Your task to perform on an android device: What's the latest tech news? Image 0: 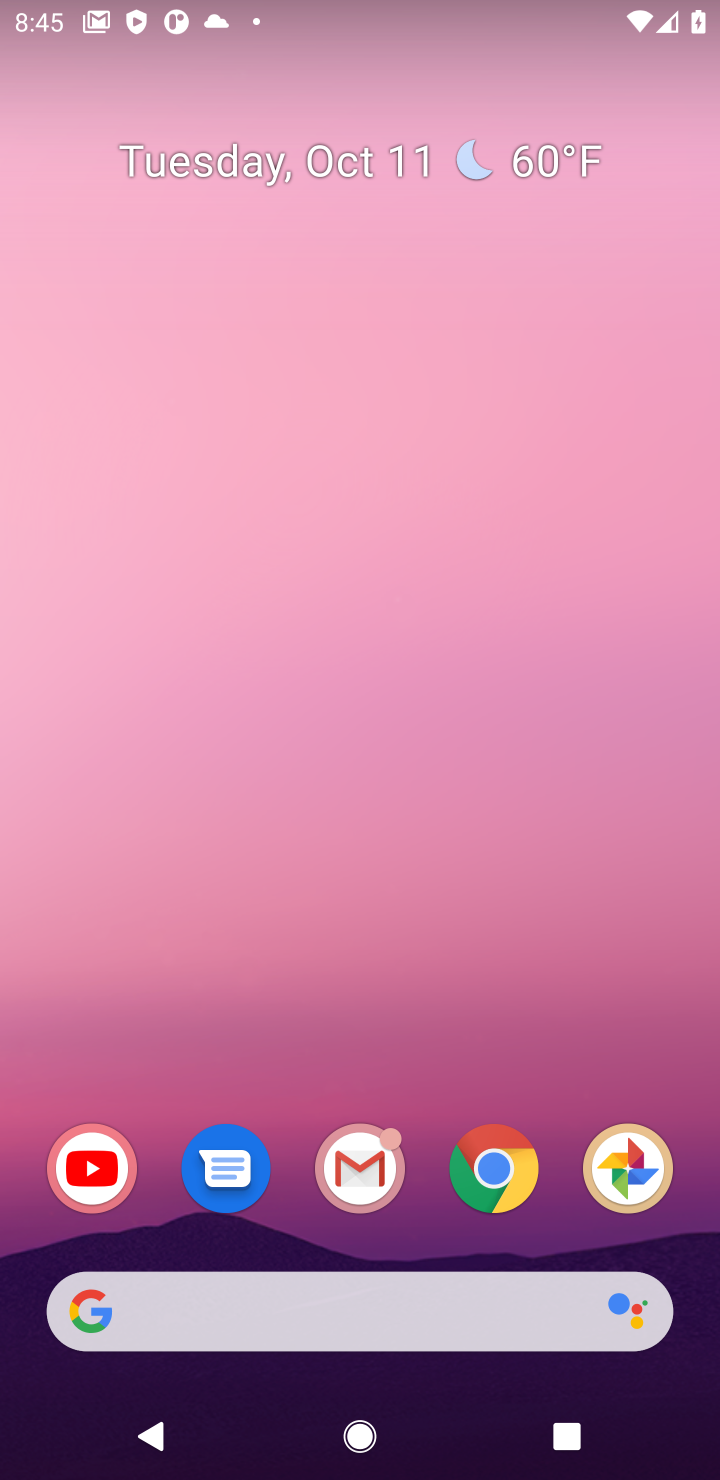
Step 0: click (470, 1166)
Your task to perform on an android device: What's the latest tech news? Image 1: 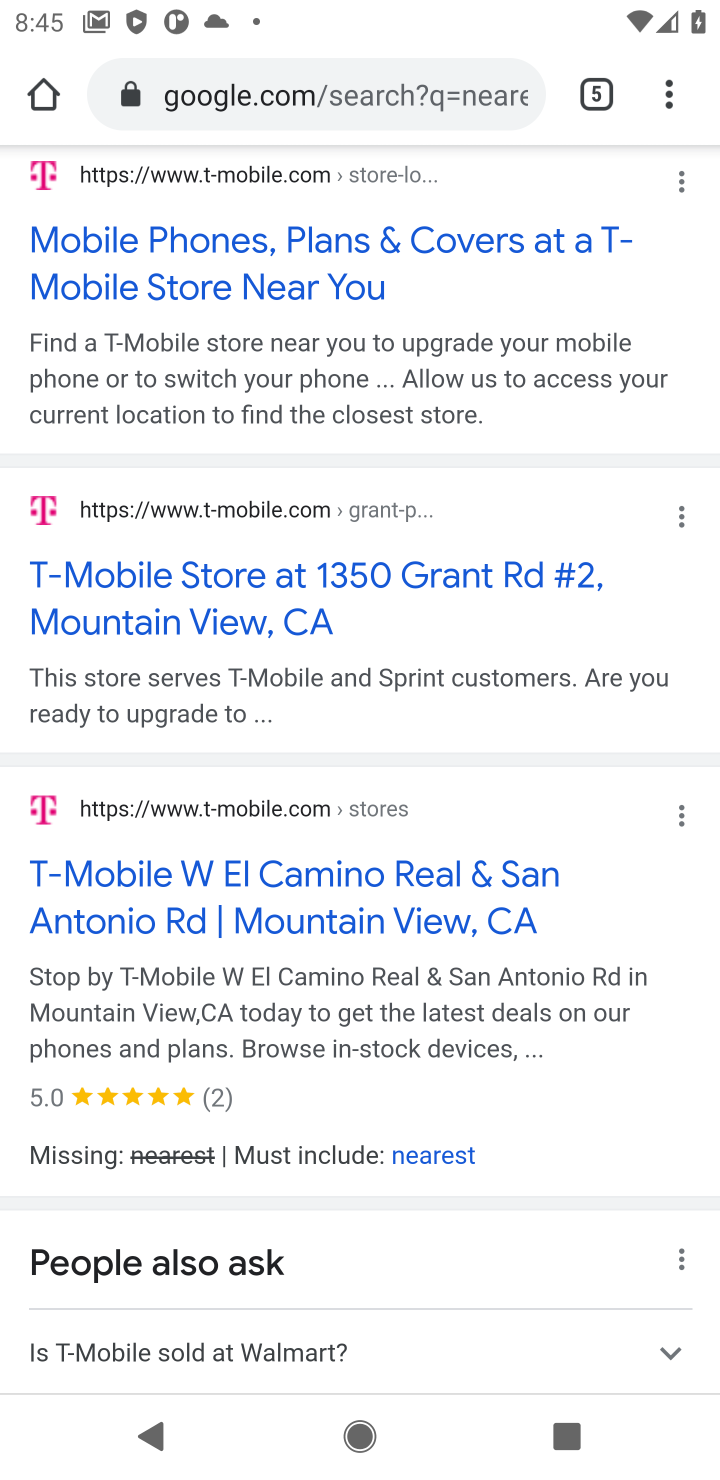
Step 1: click (237, 96)
Your task to perform on an android device: What's the latest tech news? Image 2: 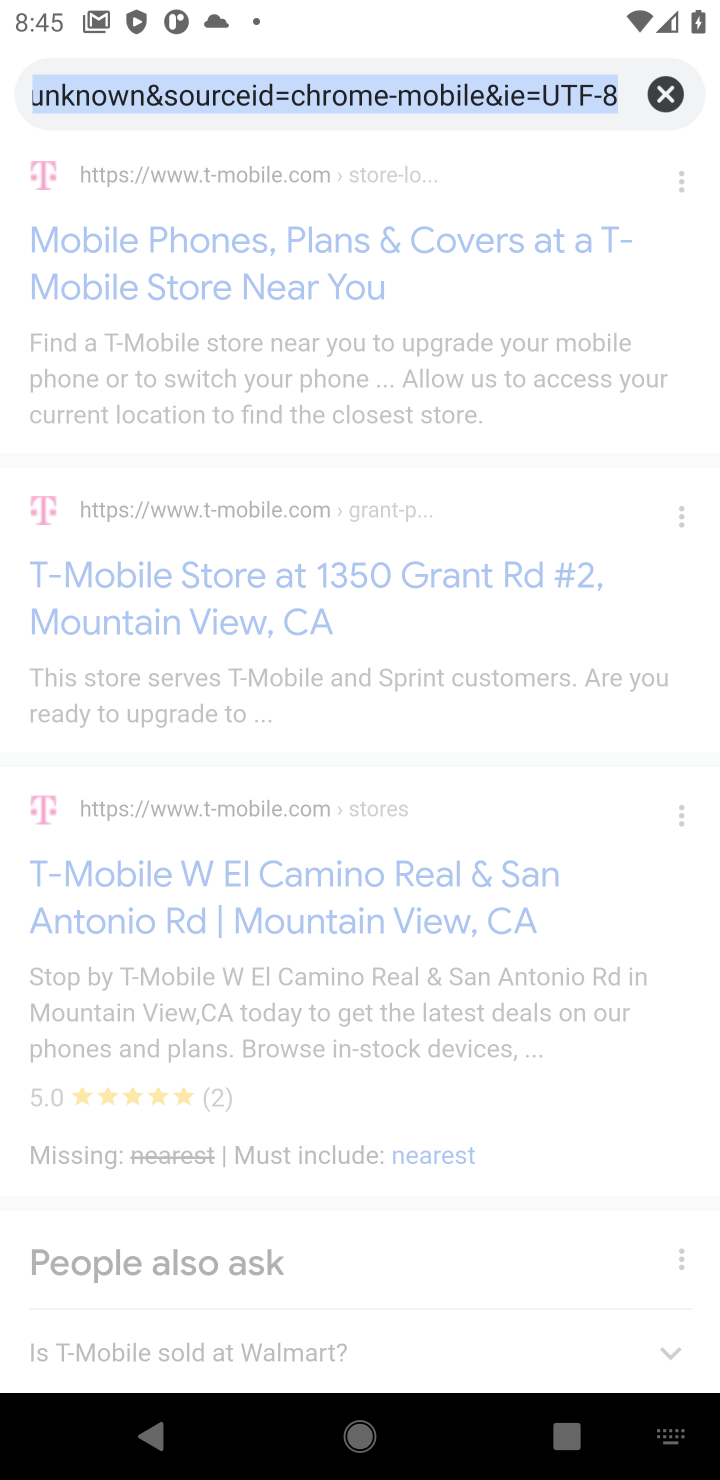
Step 2: click (654, 98)
Your task to perform on an android device: What's the latest tech news? Image 3: 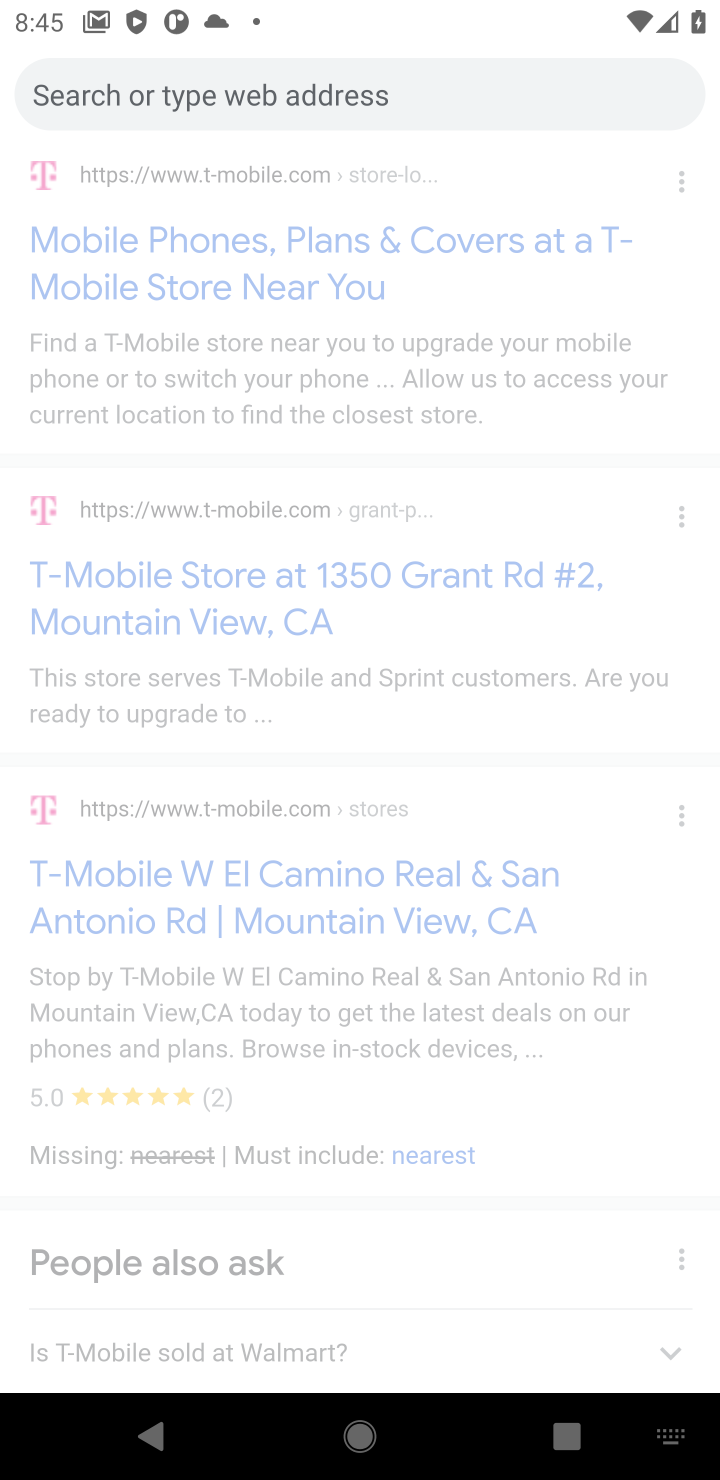
Step 3: type "latest tech news"
Your task to perform on an android device: What's the latest tech news? Image 4: 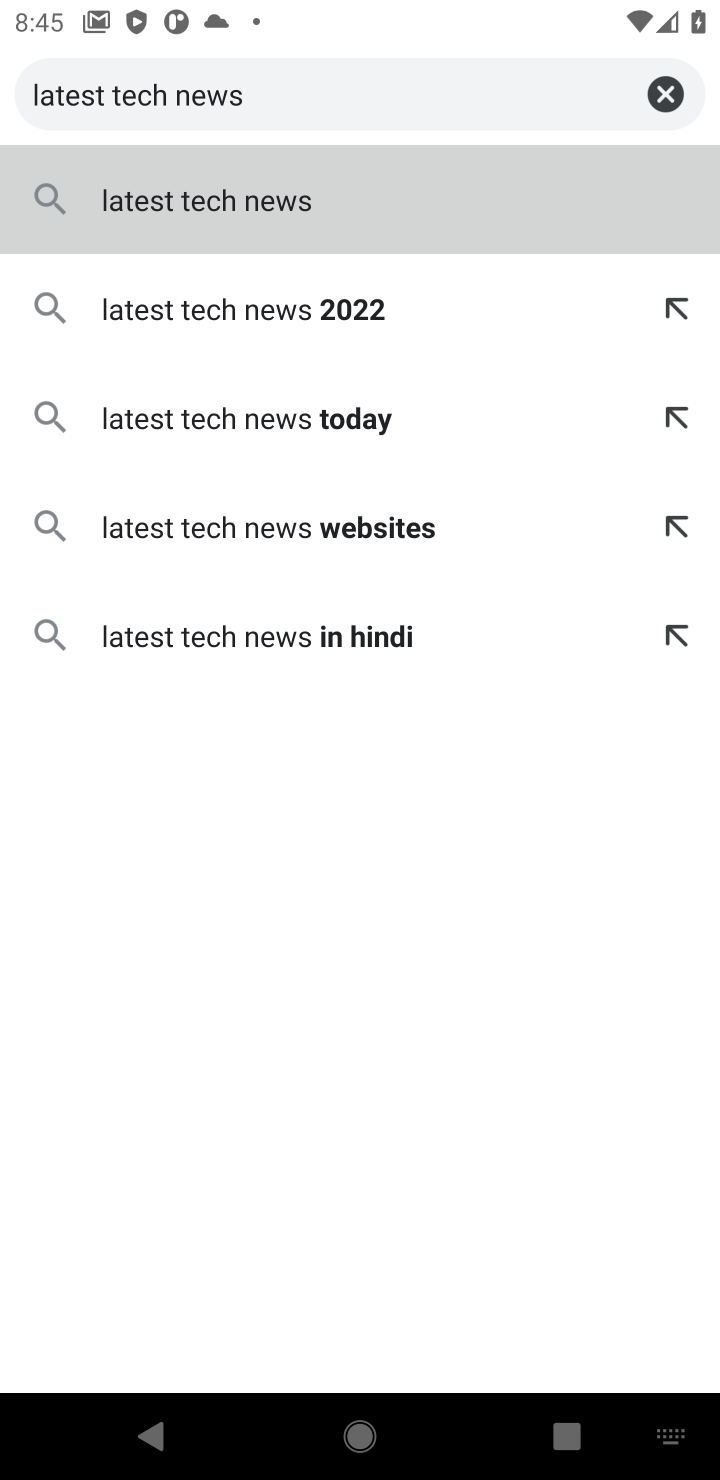
Step 4: type ""
Your task to perform on an android device: What's the latest tech news? Image 5: 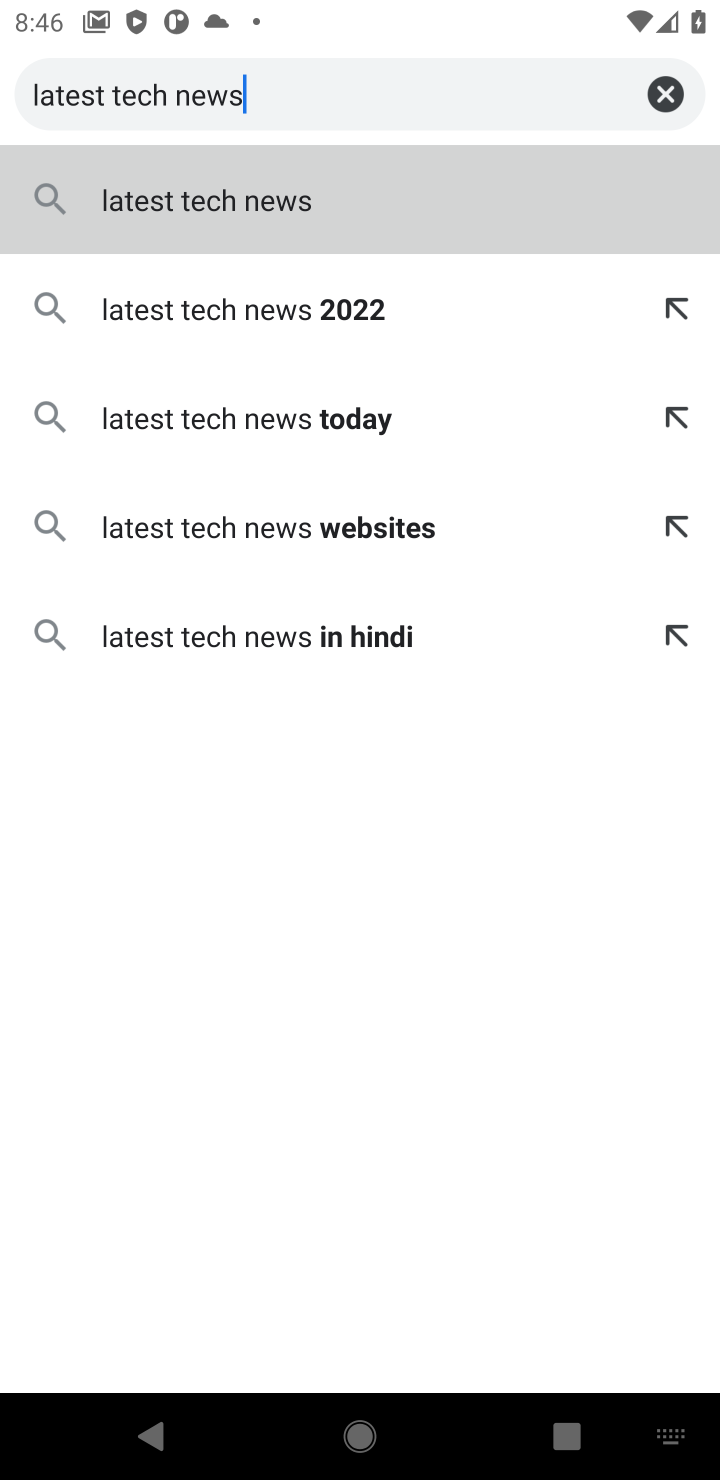
Step 5: click (270, 211)
Your task to perform on an android device: What's the latest tech news? Image 6: 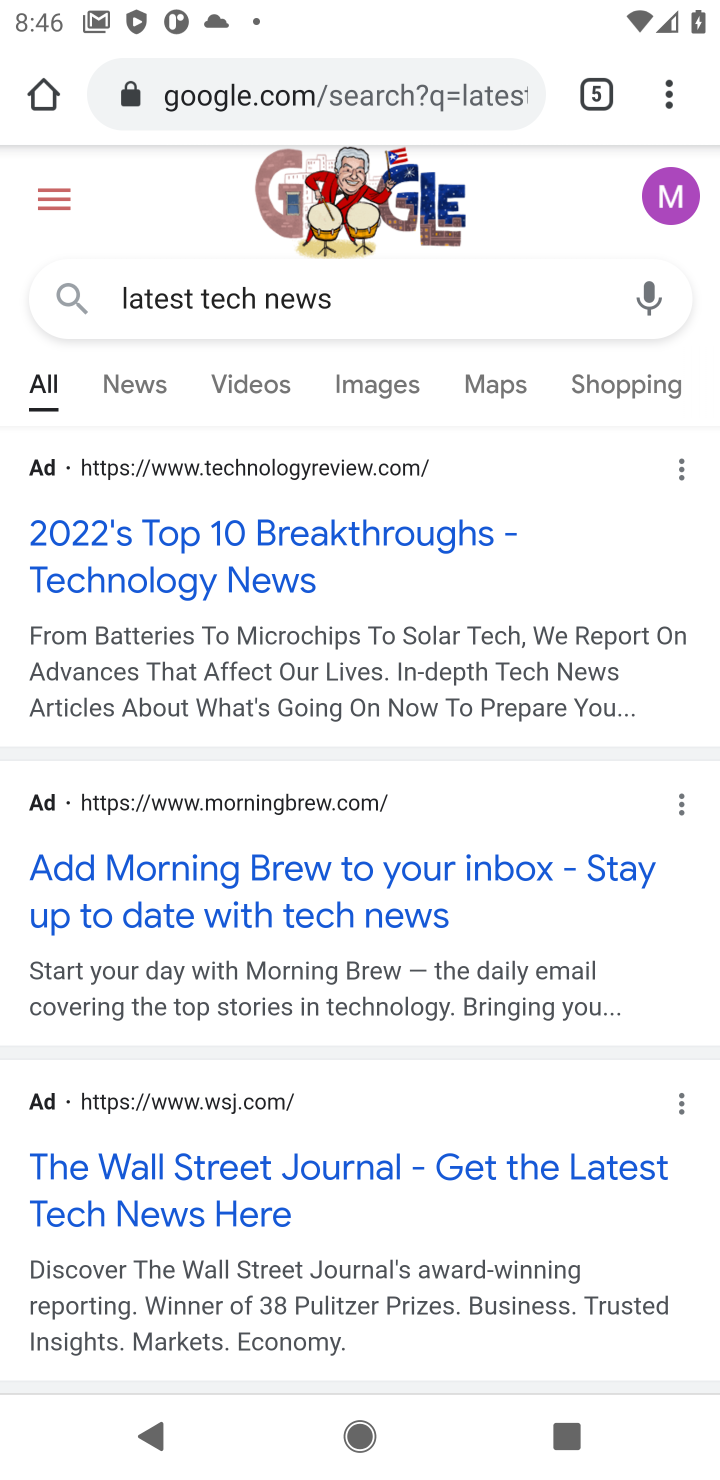
Step 6: click (301, 534)
Your task to perform on an android device: What's the latest tech news? Image 7: 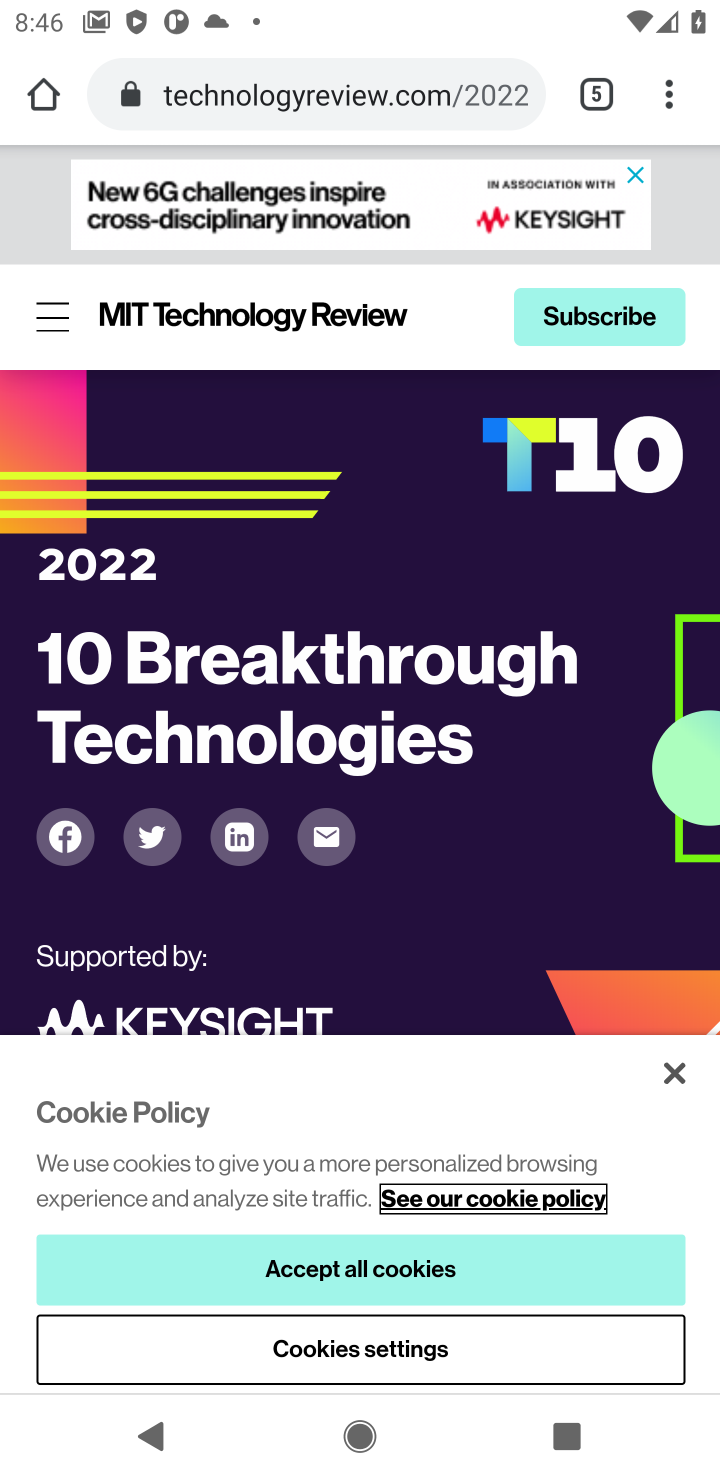
Step 7: drag from (277, 693) to (294, 444)
Your task to perform on an android device: What's the latest tech news? Image 8: 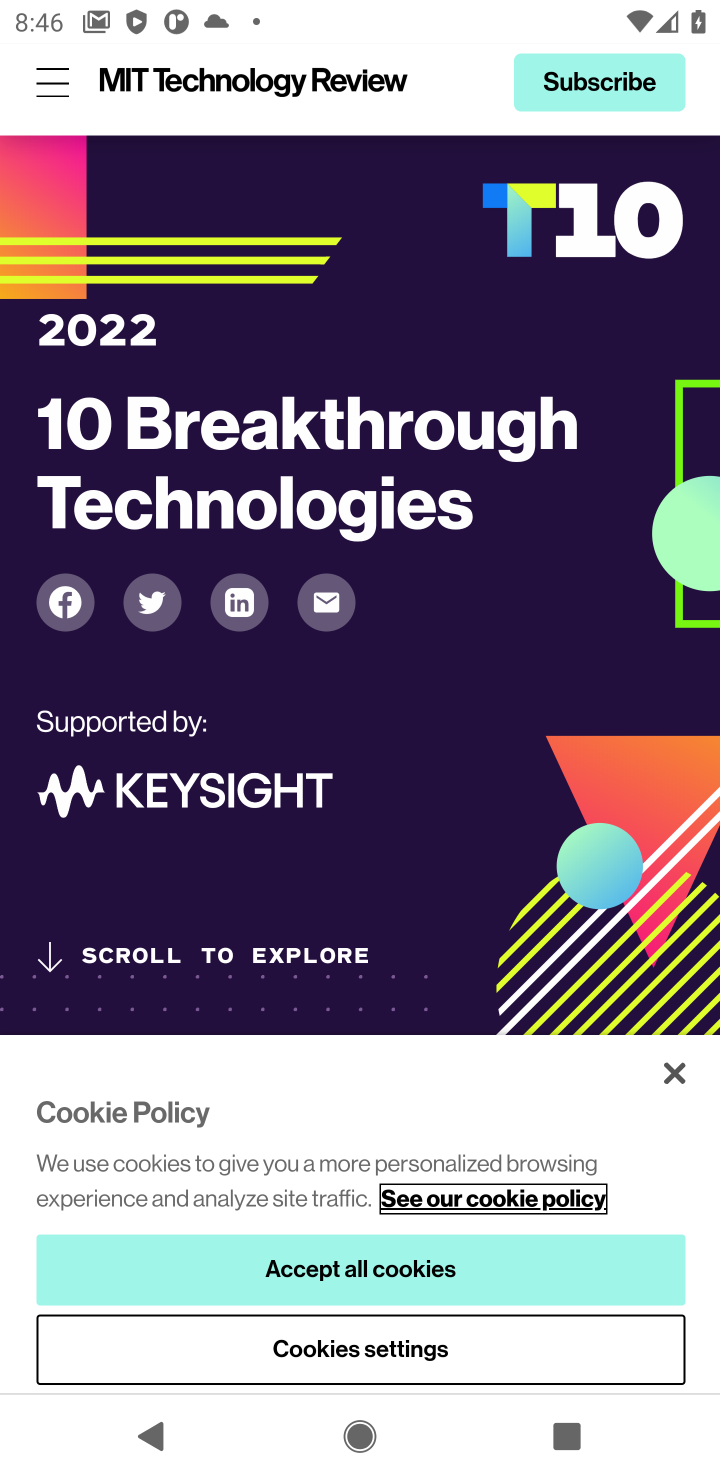
Step 8: click (677, 1073)
Your task to perform on an android device: What's the latest tech news? Image 9: 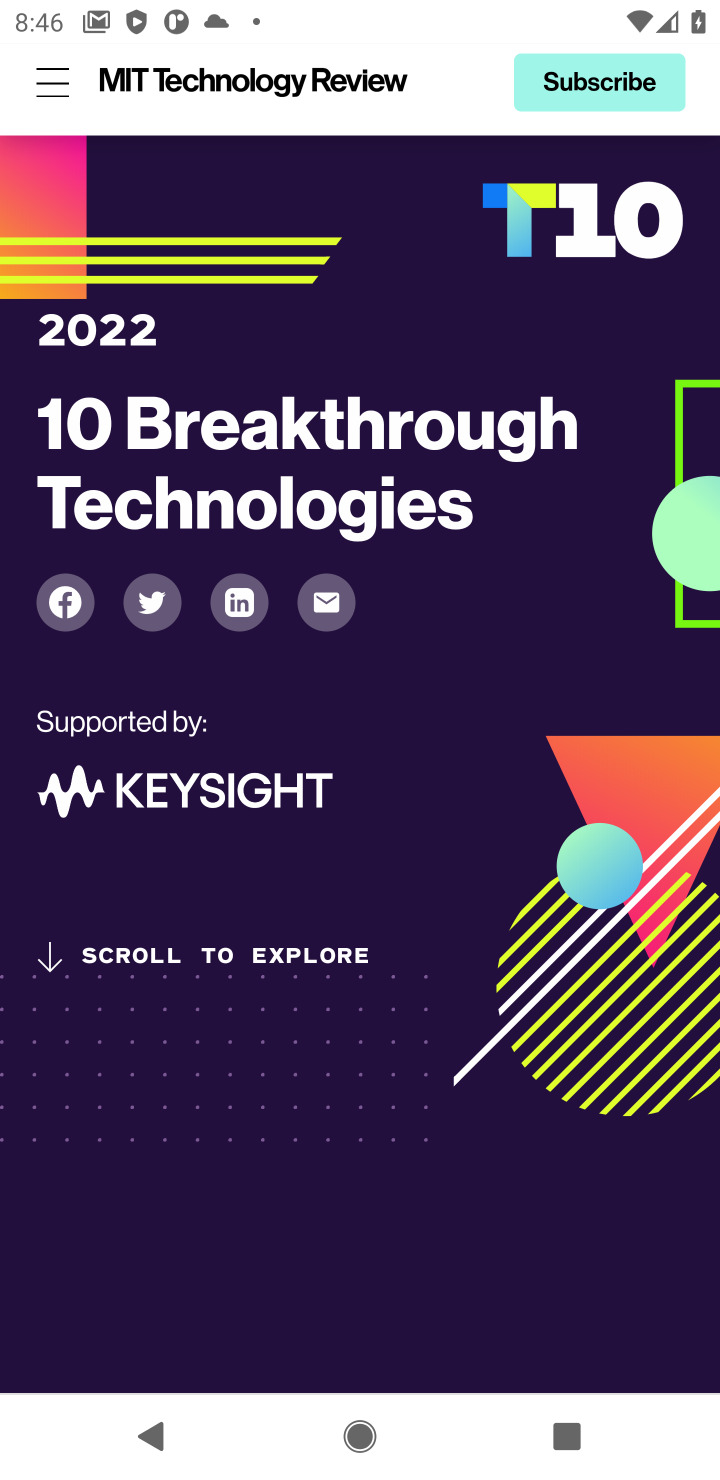
Step 9: click (321, 516)
Your task to perform on an android device: What's the latest tech news? Image 10: 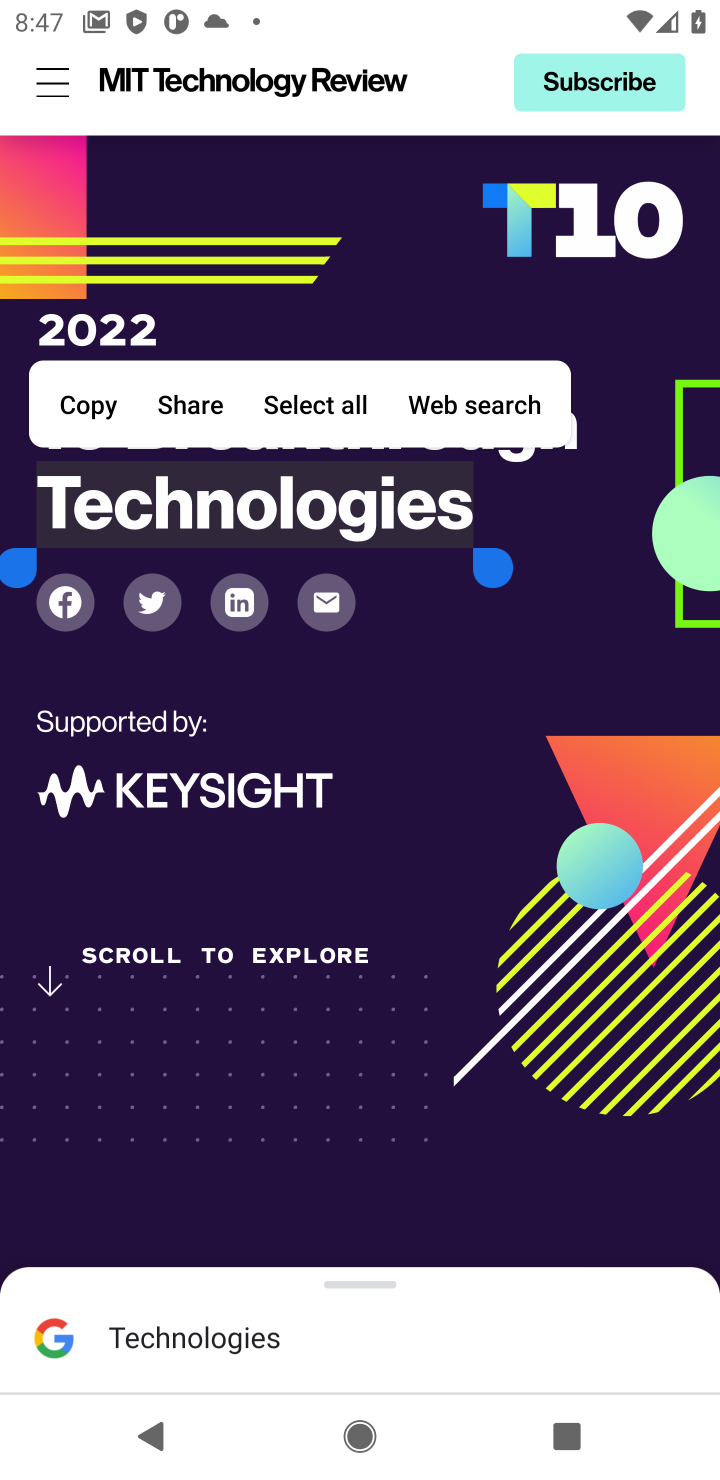
Step 10: task complete